Your task to perform on an android device: toggle notifications settings in the gmail app Image 0: 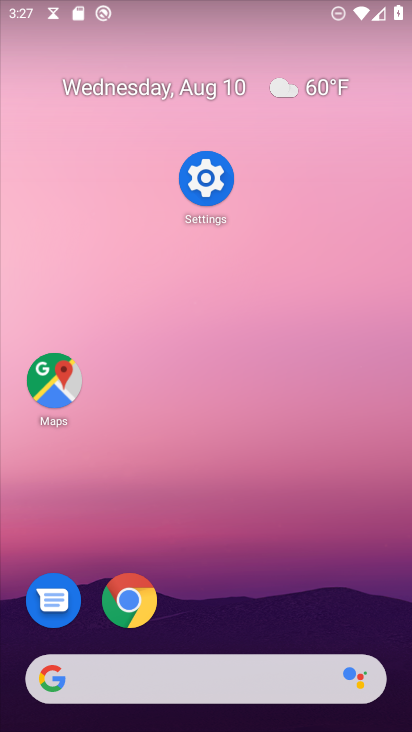
Step 0: press home button
Your task to perform on an android device: toggle notifications settings in the gmail app Image 1: 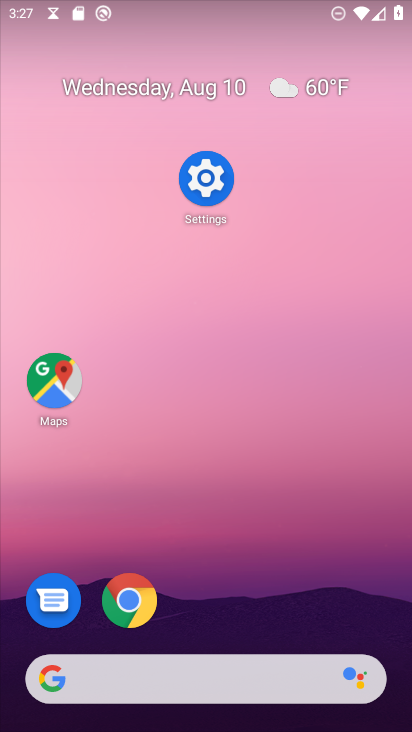
Step 1: drag from (213, 507) to (201, 54)
Your task to perform on an android device: toggle notifications settings in the gmail app Image 2: 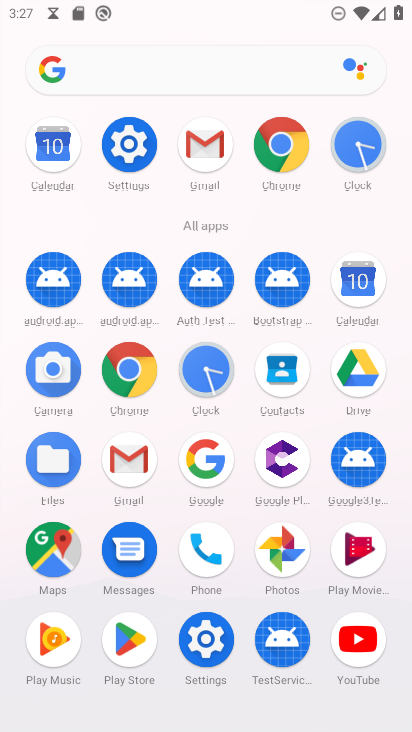
Step 2: click (199, 134)
Your task to perform on an android device: toggle notifications settings in the gmail app Image 3: 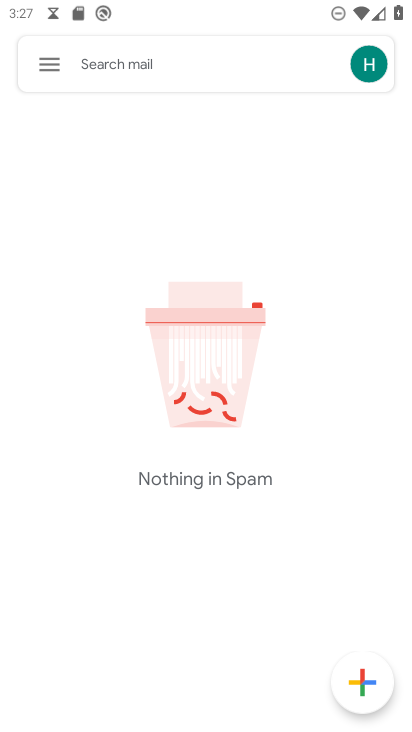
Step 3: click (43, 63)
Your task to perform on an android device: toggle notifications settings in the gmail app Image 4: 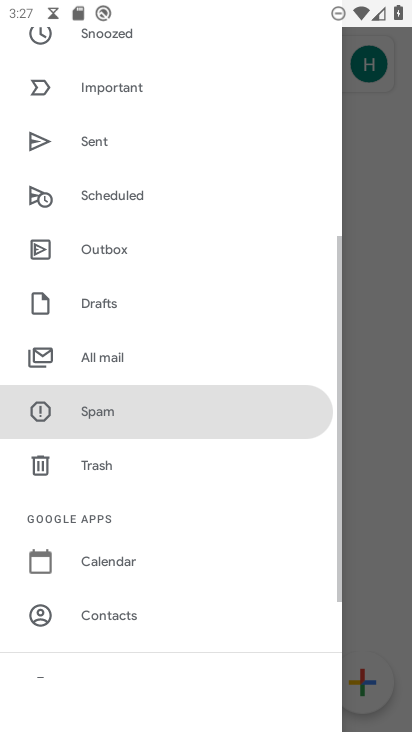
Step 4: drag from (260, 568) to (235, 135)
Your task to perform on an android device: toggle notifications settings in the gmail app Image 5: 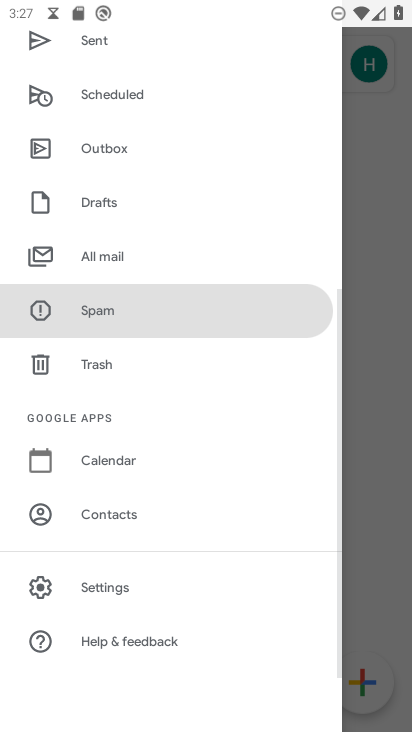
Step 5: click (100, 587)
Your task to perform on an android device: toggle notifications settings in the gmail app Image 6: 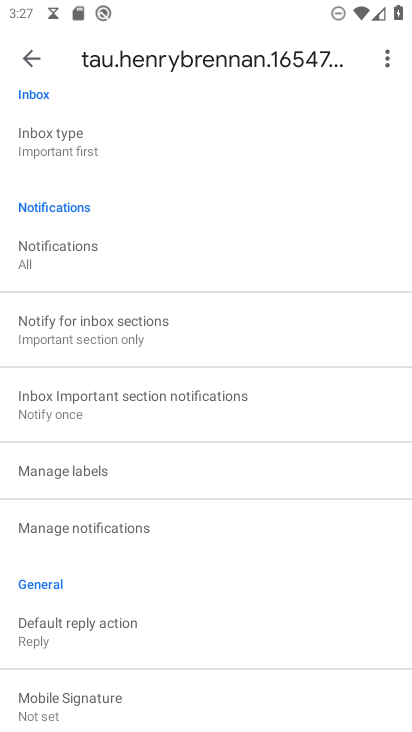
Step 6: click (73, 531)
Your task to perform on an android device: toggle notifications settings in the gmail app Image 7: 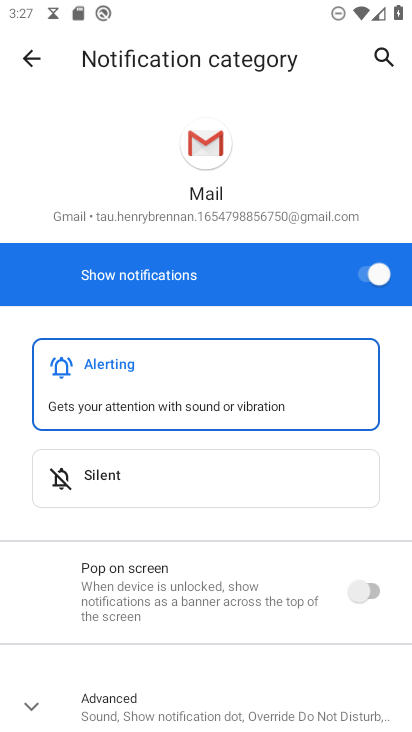
Step 7: click (375, 279)
Your task to perform on an android device: toggle notifications settings in the gmail app Image 8: 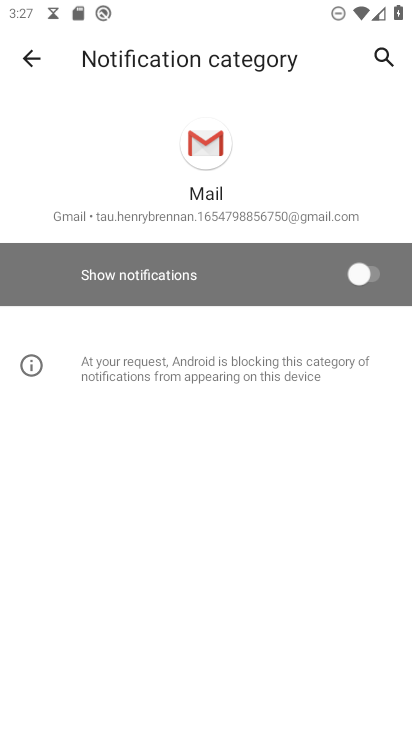
Step 8: task complete